Your task to perform on an android device: move an email to a new category in the gmail app Image 0: 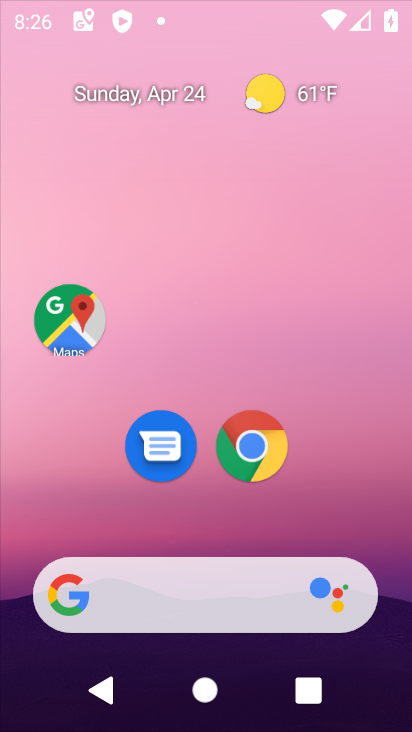
Step 0: click (245, 19)
Your task to perform on an android device: move an email to a new category in the gmail app Image 1: 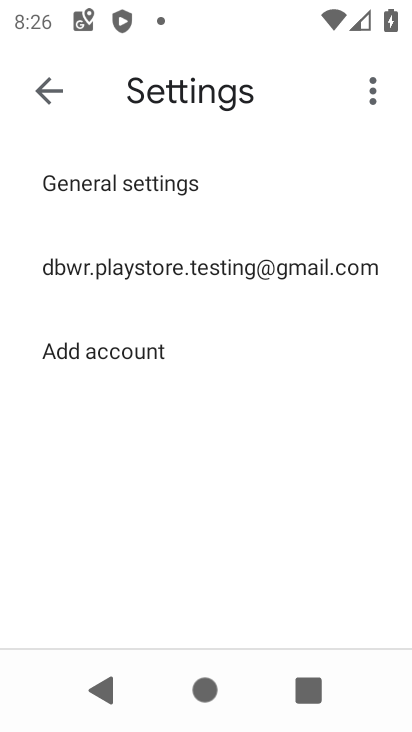
Step 1: click (42, 95)
Your task to perform on an android device: move an email to a new category in the gmail app Image 2: 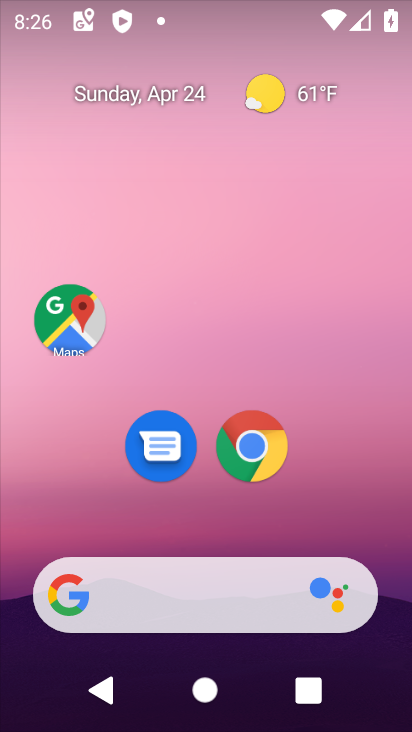
Step 2: drag from (175, 585) to (175, 213)
Your task to perform on an android device: move an email to a new category in the gmail app Image 3: 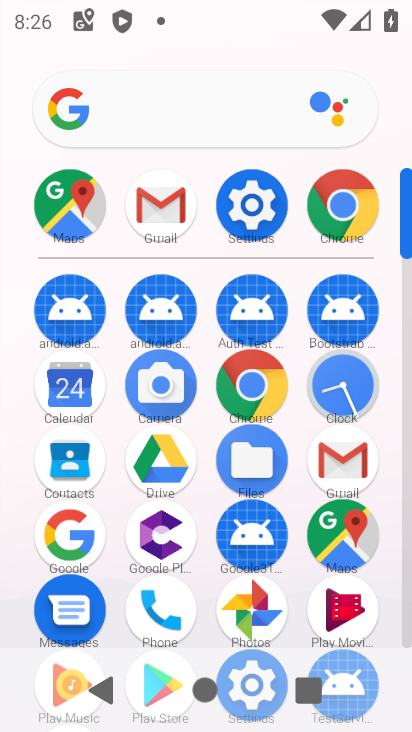
Step 3: click (348, 465)
Your task to perform on an android device: move an email to a new category in the gmail app Image 4: 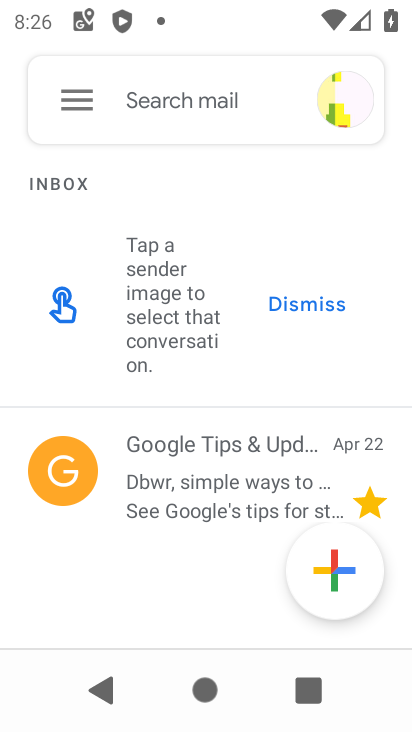
Step 4: click (181, 465)
Your task to perform on an android device: move an email to a new category in the gmail app Image 5: 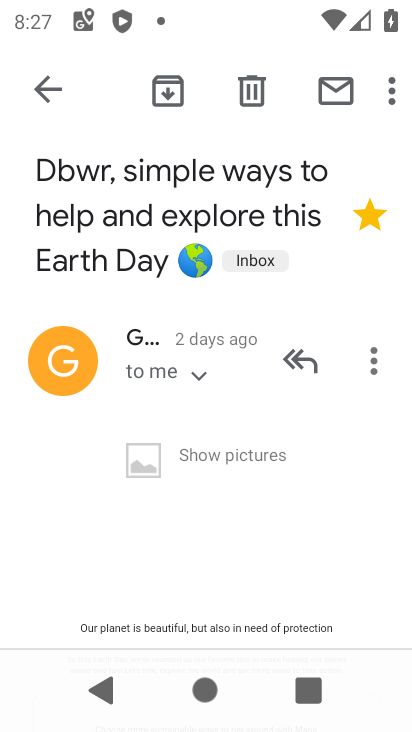
Step 5: click (395, 98)
Your task to perform on an android device: move an email to a new category in the gmail app Image 6: 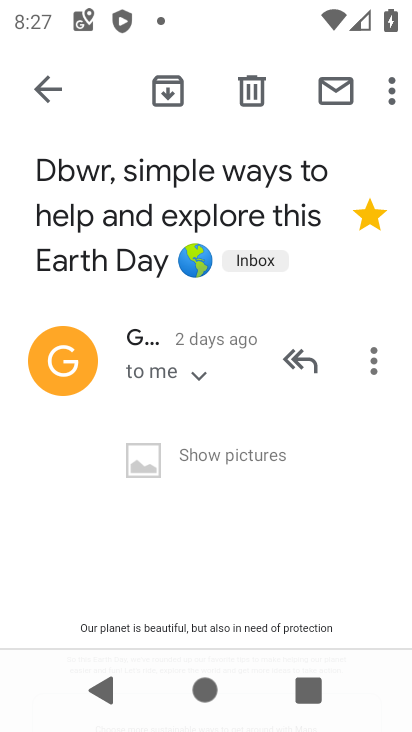
Step 6: click (395, 103)
Your task to perform on an android device: move an email to a new category in the gmail app Image 7: 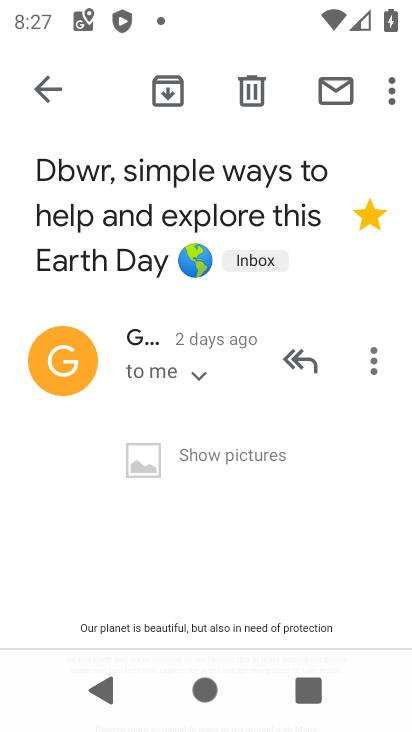
Step 7: click (388, 109)
Your task to perform on an android device: move an email to a new category in the gmail app Image 8: 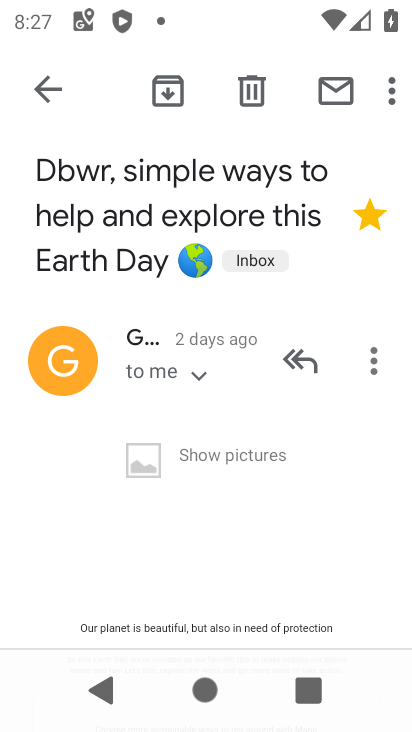
Step 8: click (391, 108)
Your task to perform on an android device: move an email to a new category in the gmail app Image 9: 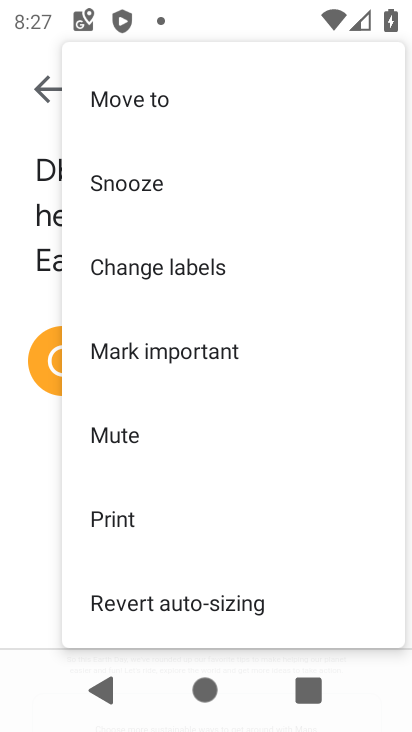
Step 9: press home button
Your task to perform on an android device: move an email to a new category in the gmail app Image 10: 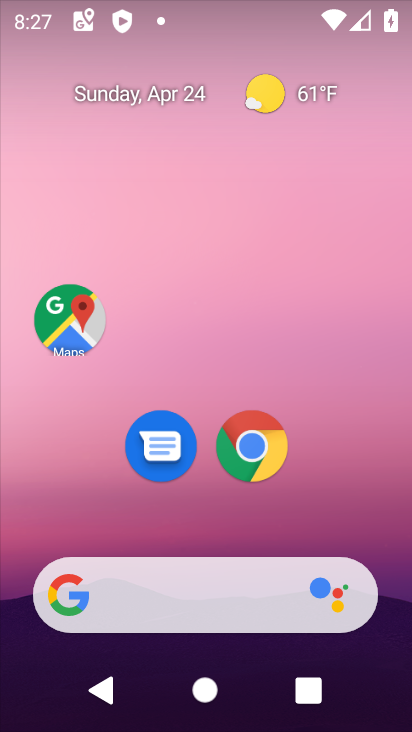
Step 10: drag from (218, 571) to (289, 35)
Your task to perform on an android device: move an email to a new category in the gmail app Image 11: 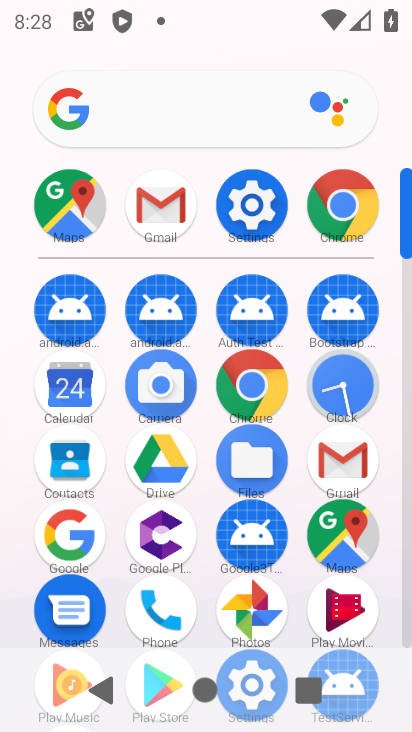
Step 11: click (328, 451)
Your task to perform on an android device: move an email to a new category in the gmail app Image 12: 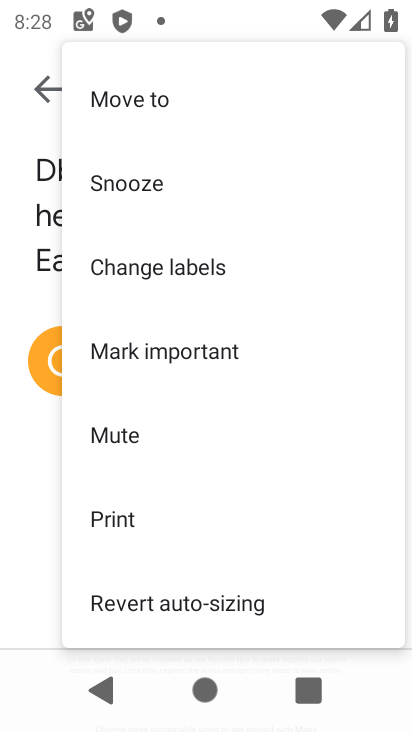
Step 12: press home button
Your task to perform on an android device: move an email to a new category in the gmail app Image 13: 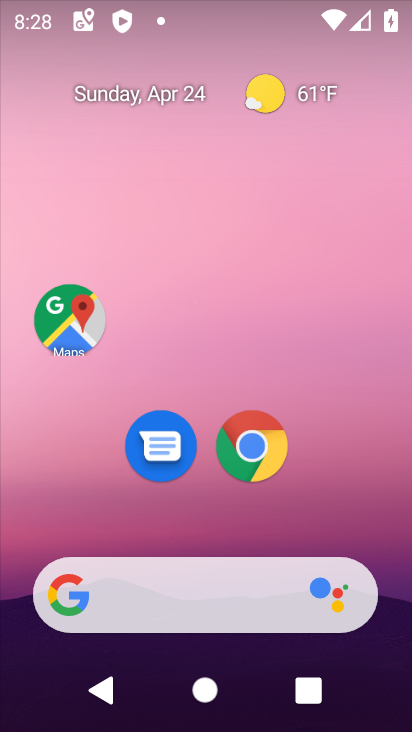
Step 13: drag from (197, 518) to (209, 40)
Your task to perform on an android device: move an email to a new category in the gmail app Image 14: 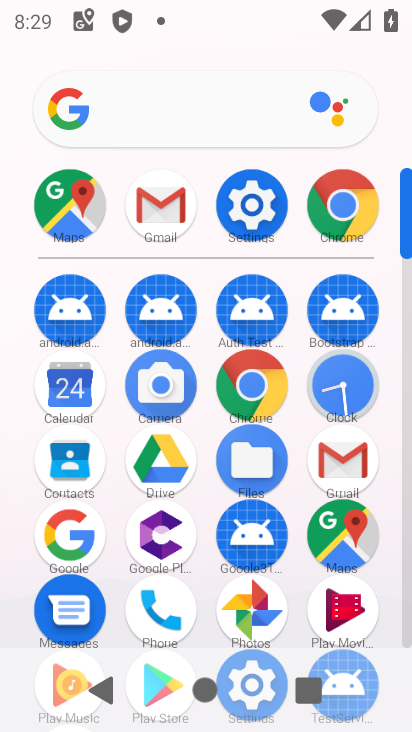
Step 14: click (333, 458)
Your task to perform on an android device: move an email to a new category in the gmail app Image 15: 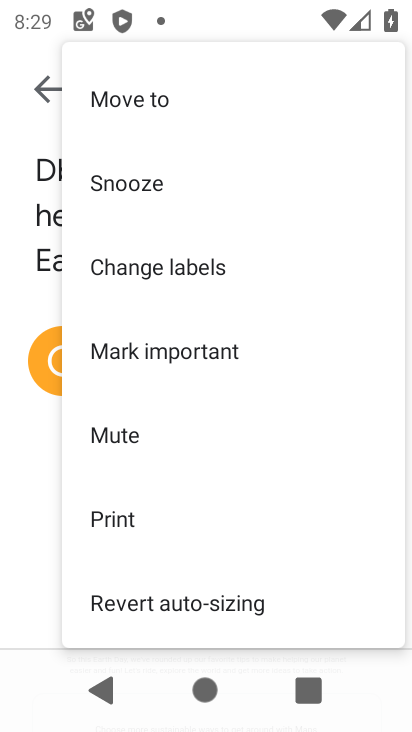
Step 15: click (35, 105)
Your task to perform on an android device: move an email to a new category in the gmail app Image 16: 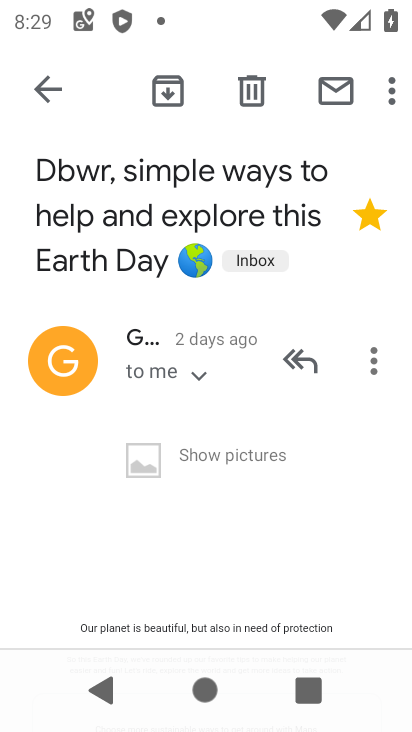
Step 16: click (33, 108)
Your task to perform on an android device: move an email to a new category in the gmail app Image 17: 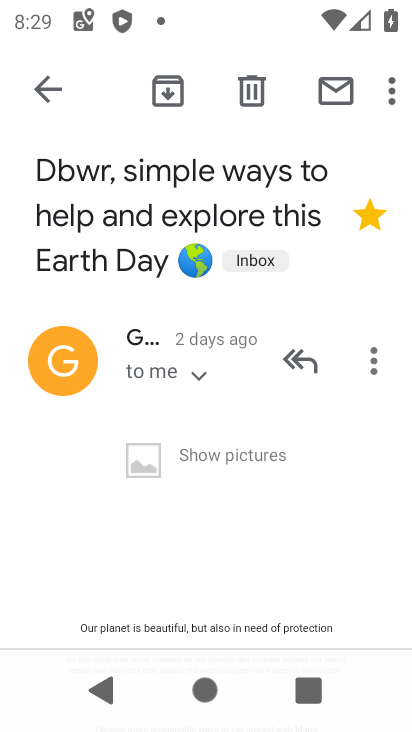
Step 17: click (38, 90)
Your task to perform on an android device: move an email to a new category in the gmail app Image 18: 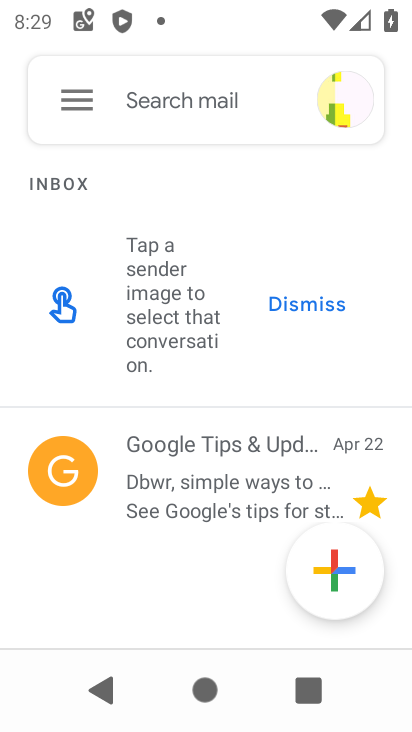
Step 18: click (90, 117)
Your task to perform on an android device: move an email to a new category in the gmail app Image 19: 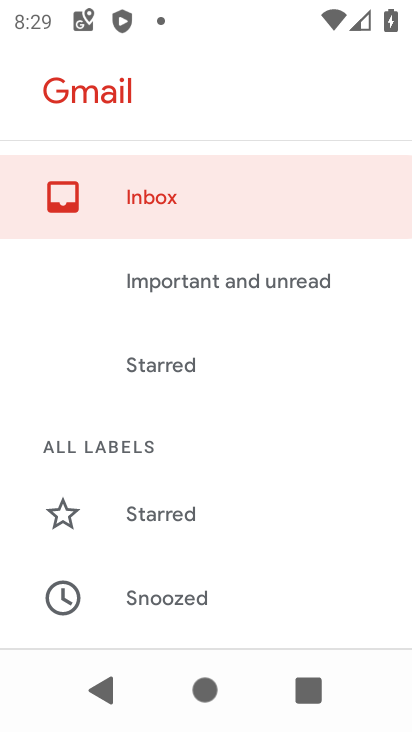
Step 19: task complete